Your task to perform on an android device: set the timer Image 0: 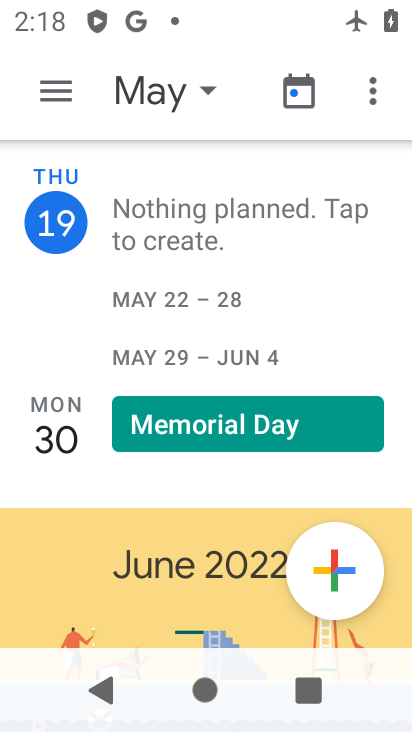
Step 0: press home button
Your task to perform on an android device: set the timer Image 1: 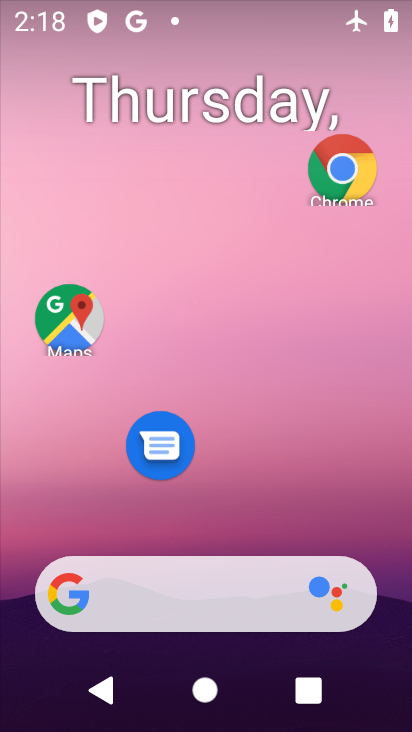
Step 1: drag from (296, 494) to (224, 133)
Your task to perform on an android device: set the timer Image 2: 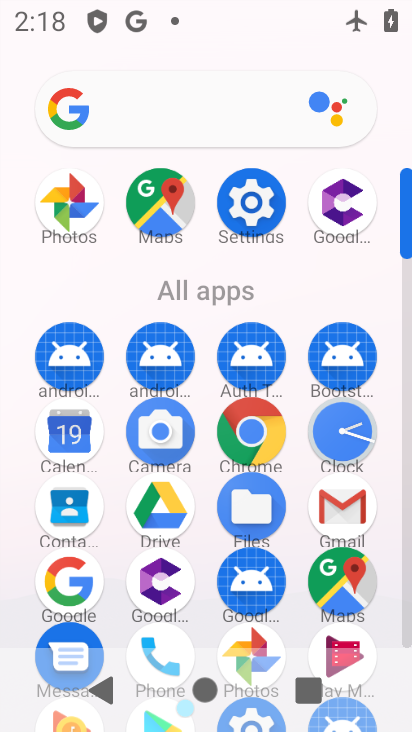
Step 2: click (327, 444)
Your task to perform on an android device: set the timer Image 3: 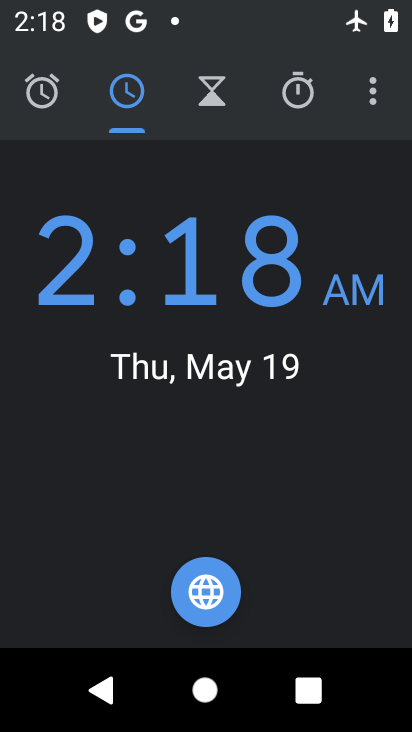
Step 3: click (210, 105)
Your task to perform on an android device: set the timer Image 4: 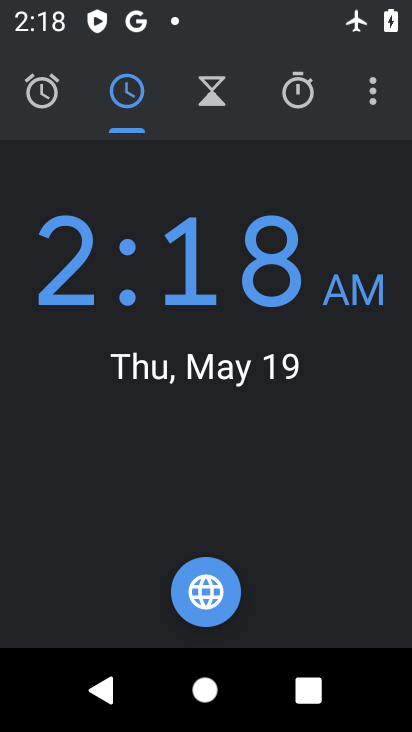
Step 4: click (219, 93)
Your task to perform on an android device: set the timer Image 5: 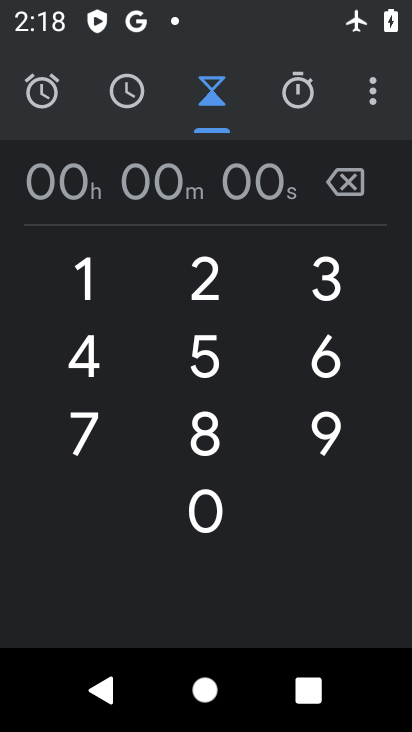
Step 5: click (205, 286)
Your task to perform on an android device: set the timer Image 6: 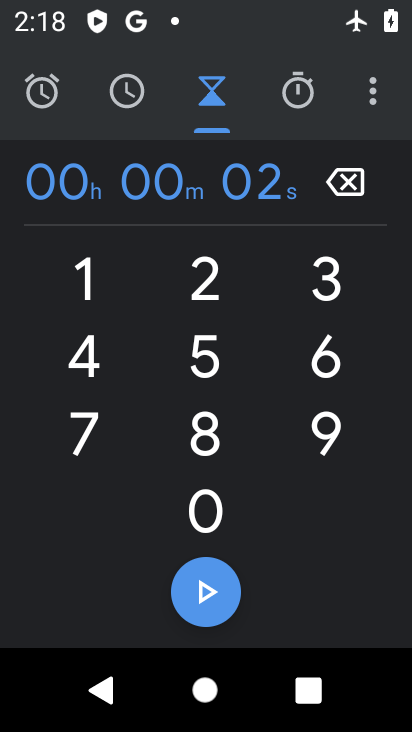
Step 6: click (229, 512)
Your task to perform on an android device: set the timer Image 7: 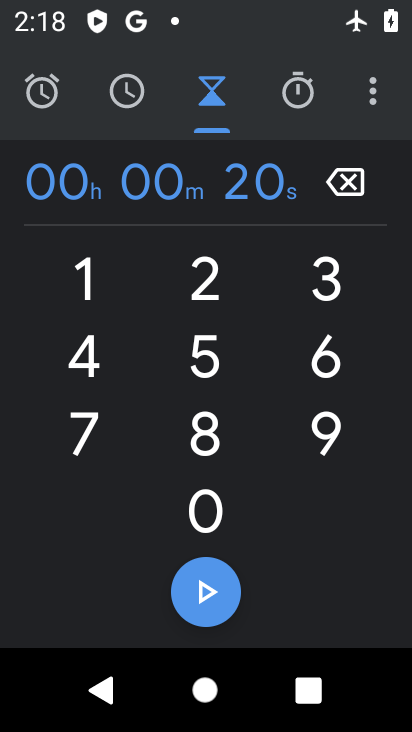
Step 7: click (193, 533)
Your task to perform on an android device: set the timer Image 8: 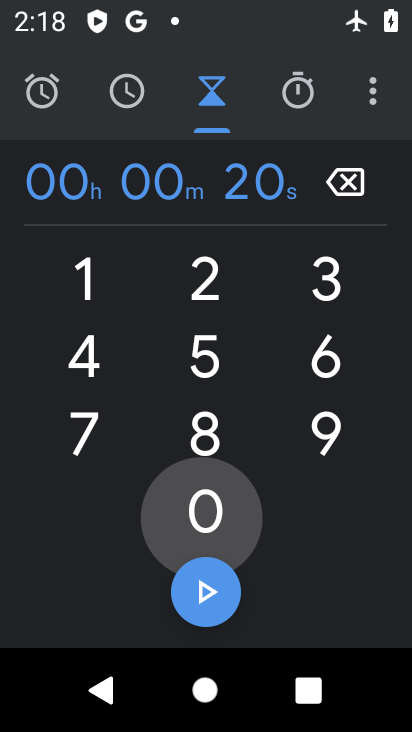
Step 8: click (193, 533)
Your task to perform on an android device: set the timer Image 9: 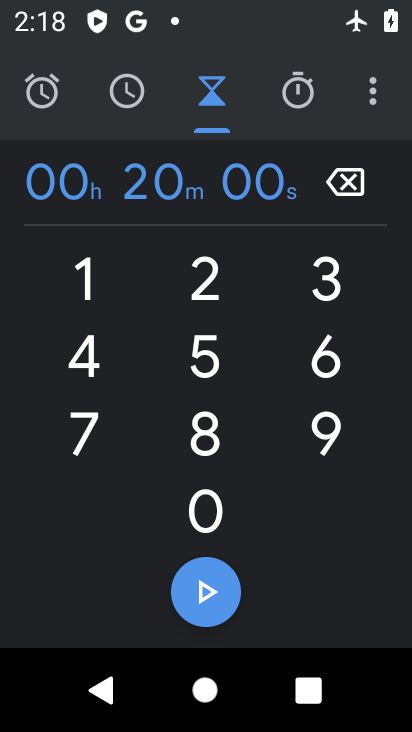
Step 9: click (224, 599)
Your task to perform on an android device: set the timer Image 10: 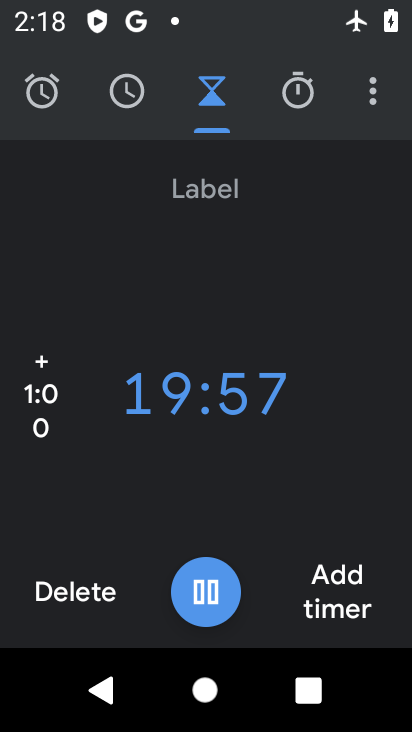
Step 10: click (344, 601)
Your task to perform on an android device: set the timer Image 11: 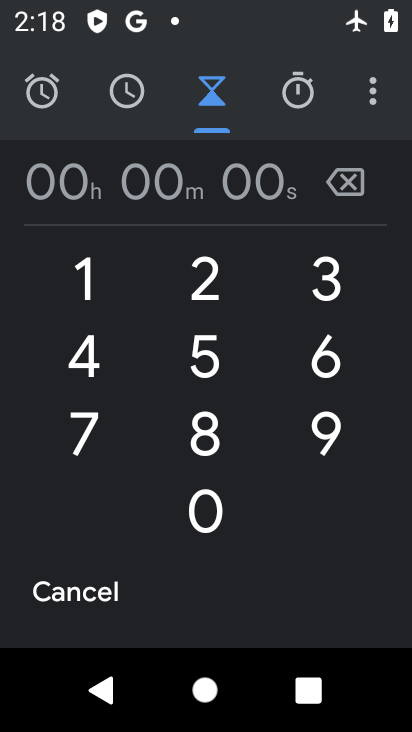
Step 11: task complete